Your task to perform on an android device: Go to ESPN.com Image 0: 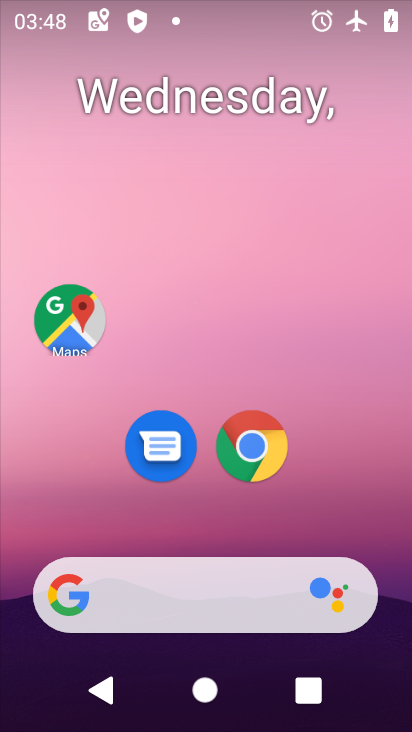
Step 0: click (263, 454)
Your task to perform on an android device: Go to ESPN.com Image 1: 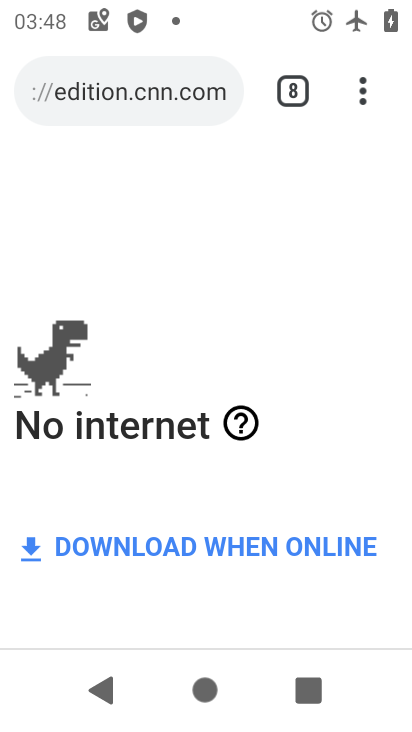
Step 1: click (300, 97)
Your task to perform on an android device: Go to ESPN.com Image 2: 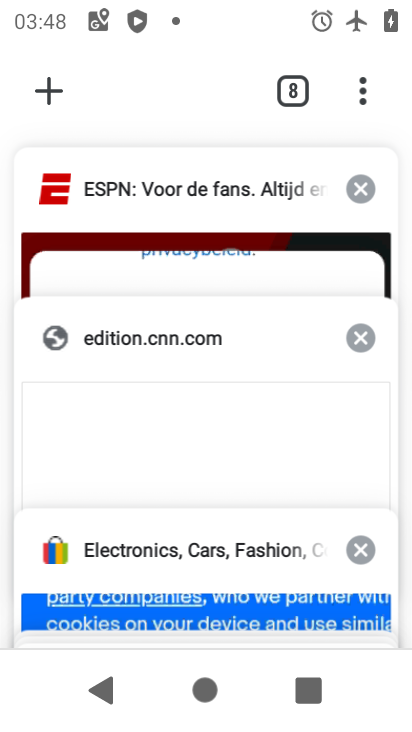
Step 2: click (38, 90)
Your task to perform on an android device: Go to ESPN.com Image 3: 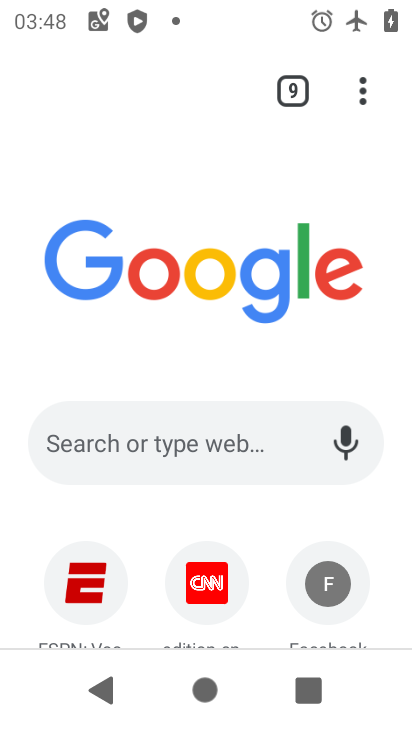
Step 3: click (129, 432)
Your task to perform on an android device: Go to ESPN.com Image 4: 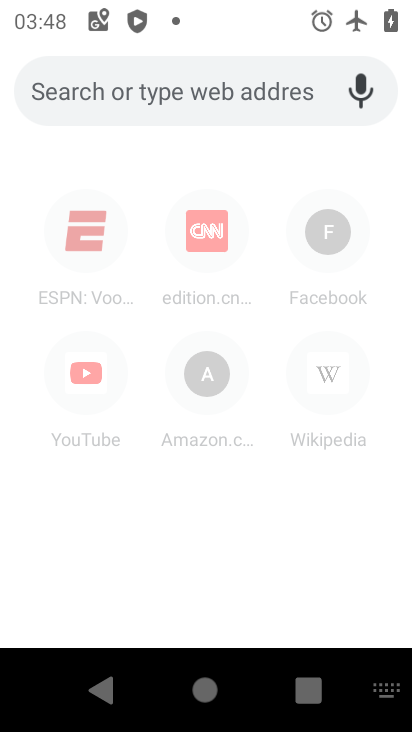
Step 4: click (87, 244)
Your task to perform on an android device: Go to ESPN.com Image 5: 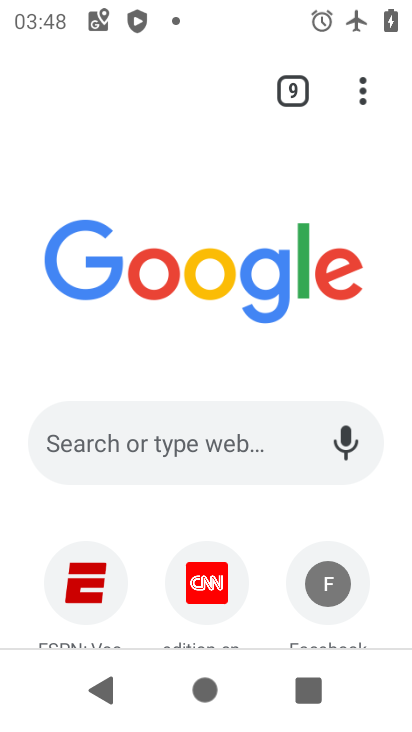
Step 5: click (81, 557)
Your task to perform on an android device: Go to ESPN.com Image 6: 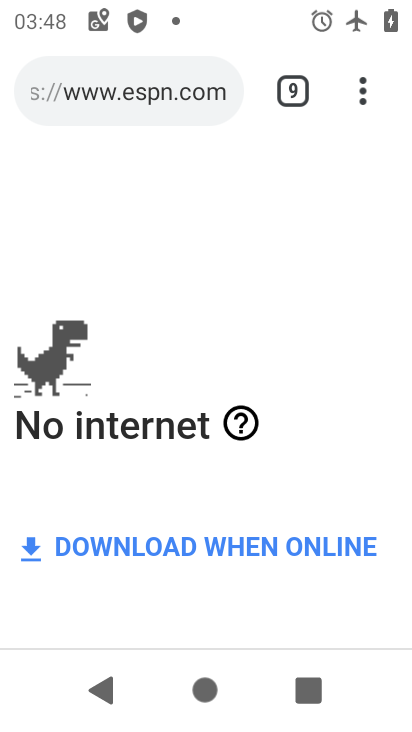
Step 6: task complete